Your task to perform on an android device: Empty the shopping cart on walmart.com. Search for sony triple a on walmart.com, select the first entry, and add it to the cart. Image 0: 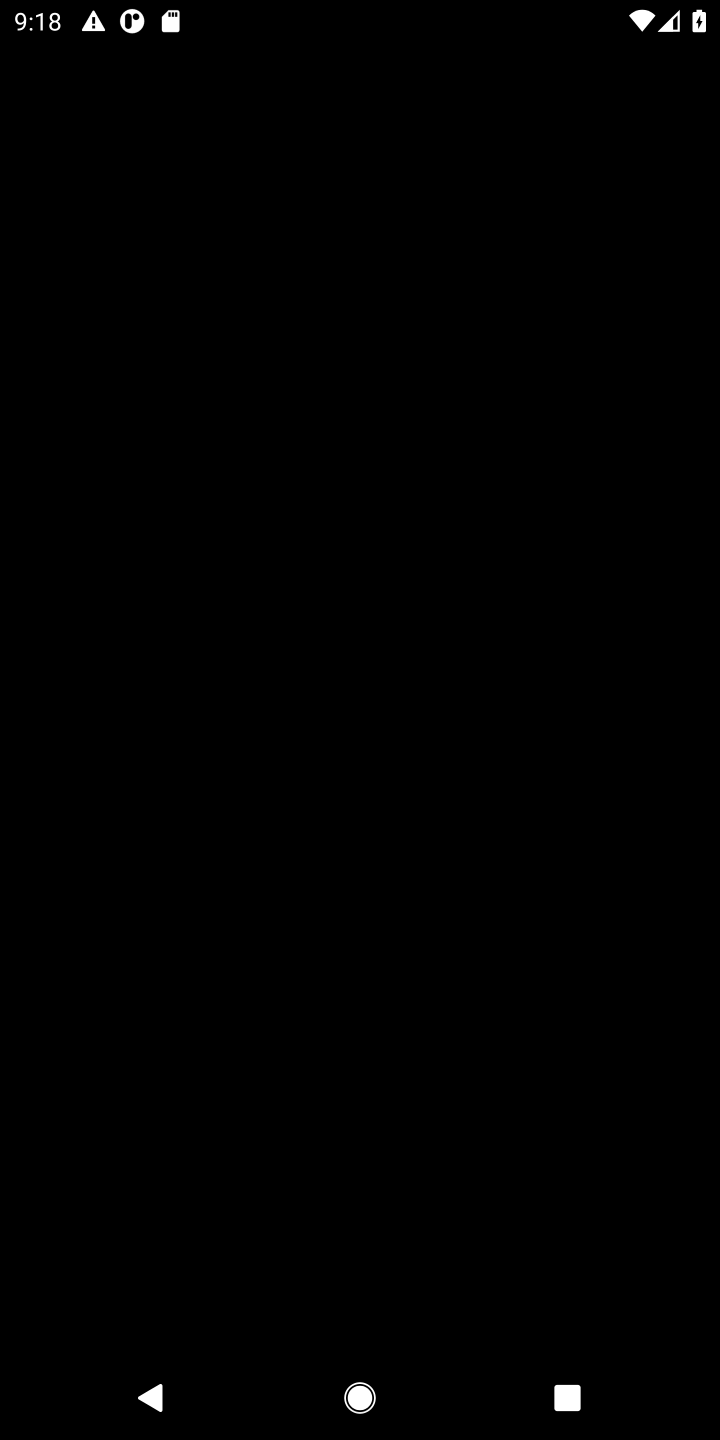
Step 0: press home button
Your task to perform on an android device: Empty the shopping cart on walmart.com. Search for sony triple a on walmart.com, select the first entry, and add it to the cart. Image 1: 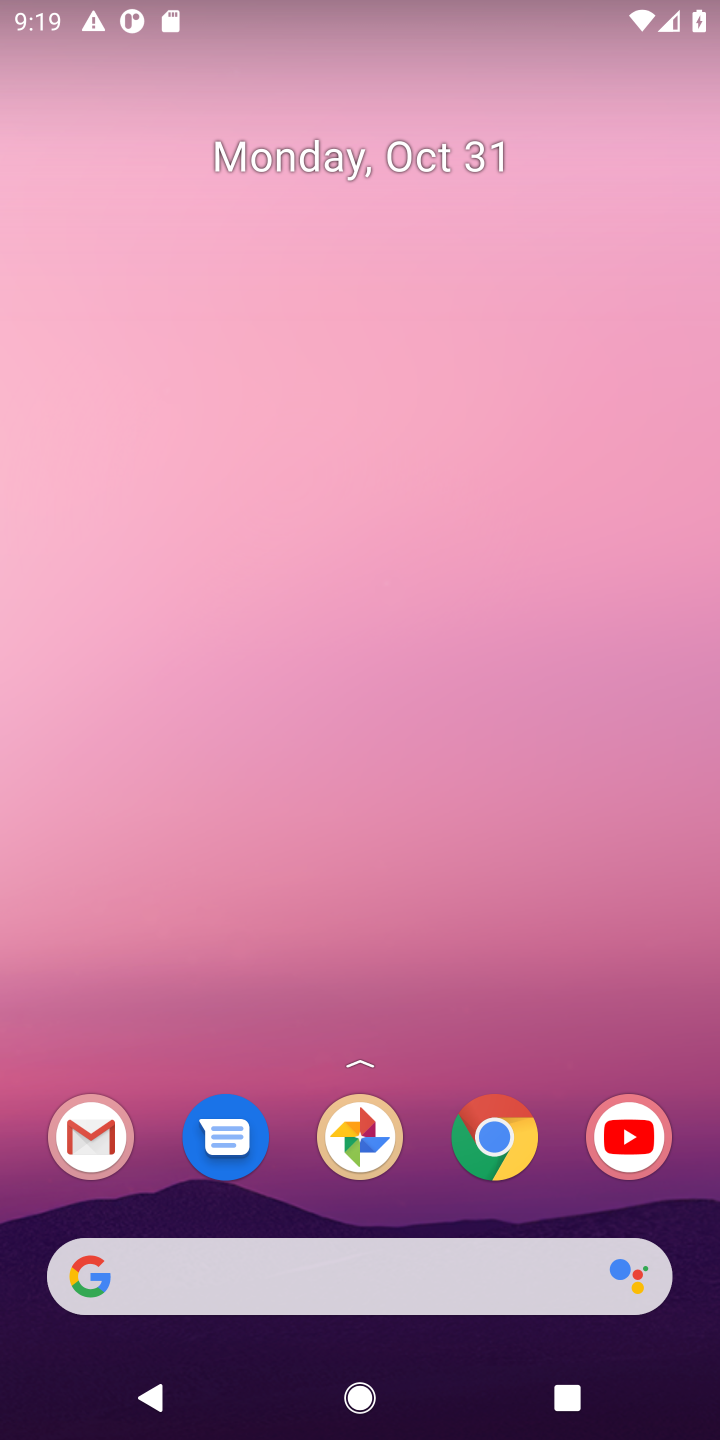
Step 1: click (504, 1151)
Your task to perform on an android device: Empty the shopping cart on walmart.com. Search for sony triple a on walmart.com, select the first entry, and add it to the cart. Image 2: 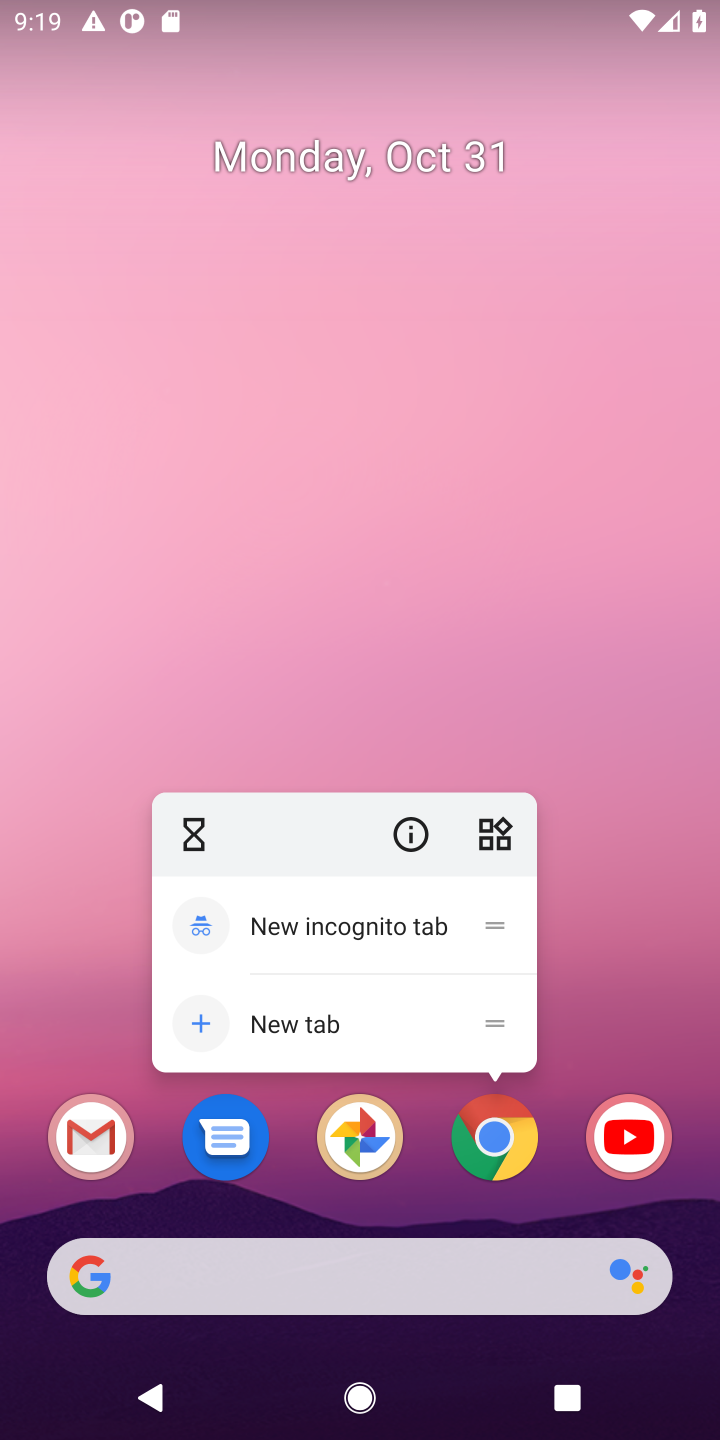
Step 2: click (660, 983)
Your task to perform on an android device: Empty the shopping cart on walmart.com. Search for sony triple a on walmart.com, select the first entry, and add it to the cart. Image 3: 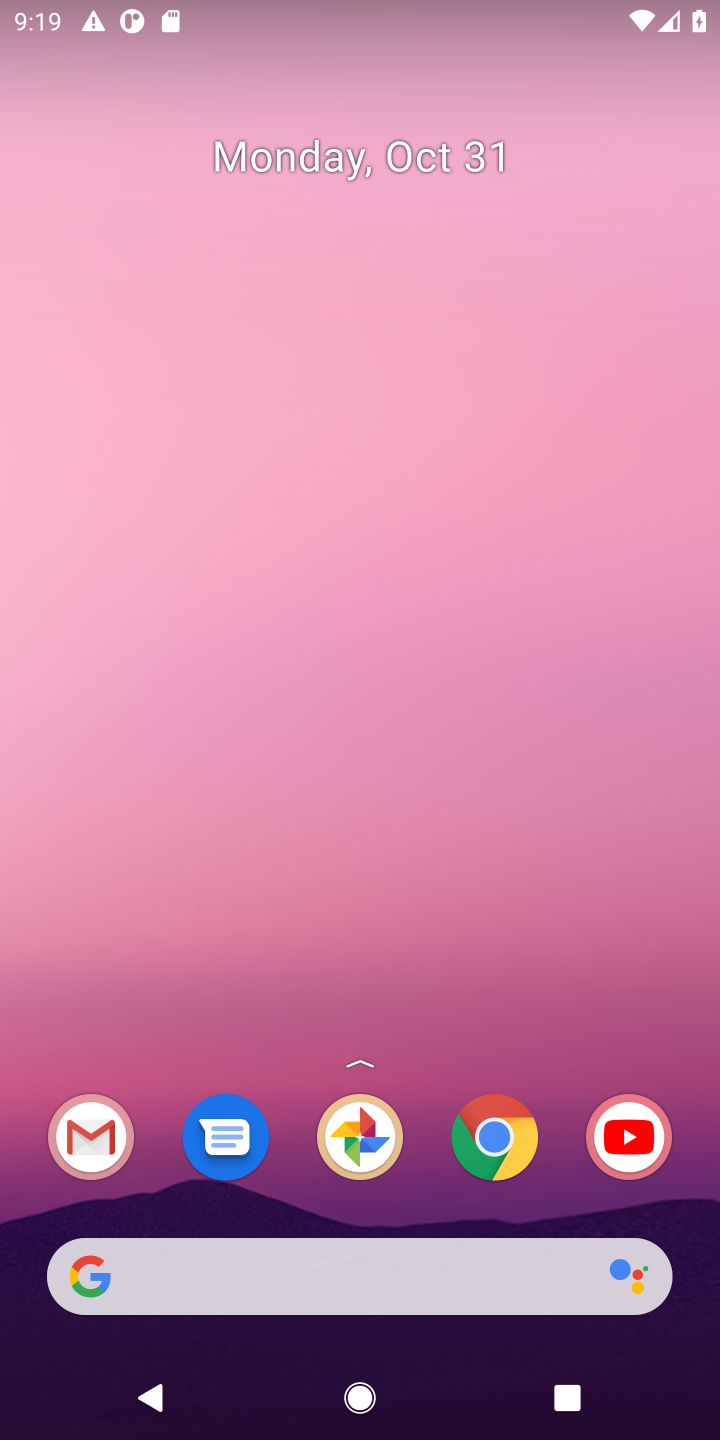
Step 3: click (488, 1130)
Your task to perform on an android device: Empty the shopping cart on walmart.com. Search for sony triple a on walmart.com, select the first entry, and add it to the cart. Image 4: 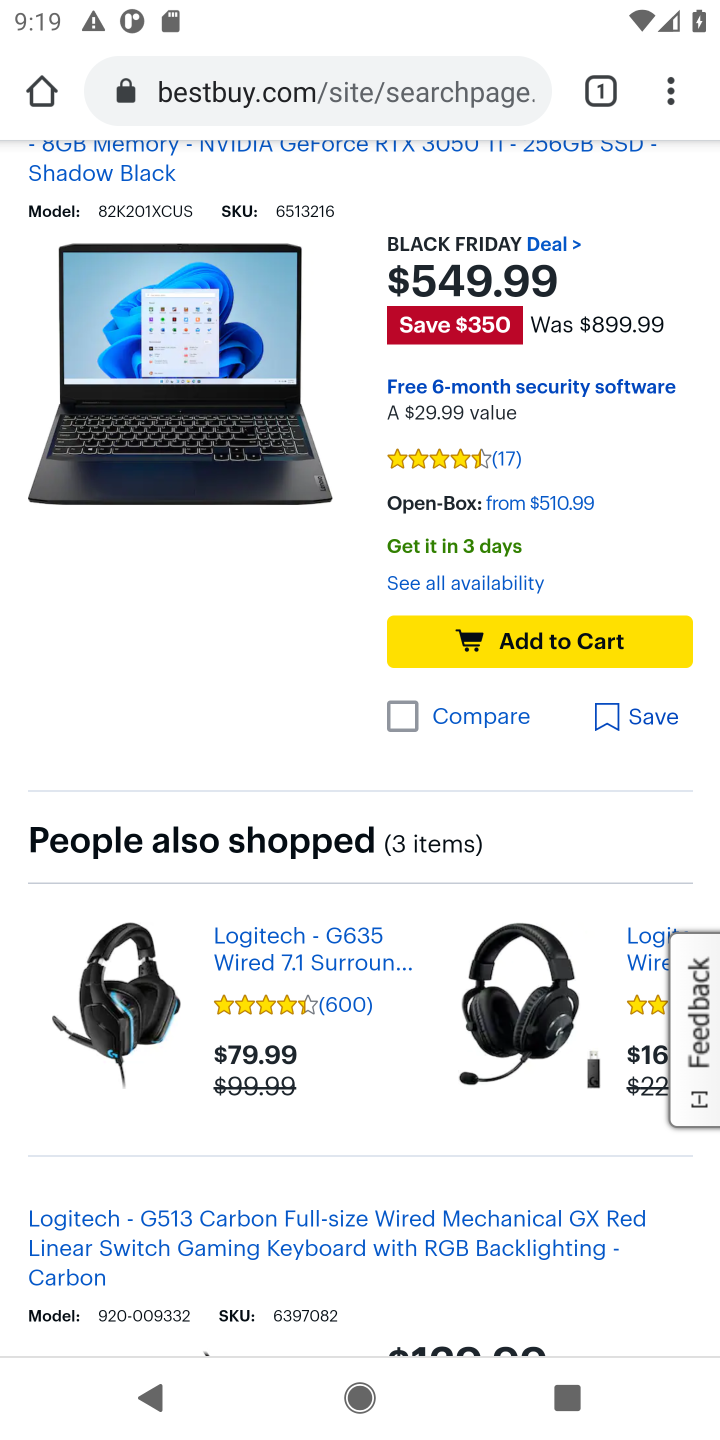
Step 4: click (378, 96)
Your task to perform on an android device: Empty the shopping cart on walmart.com. Search for sony triple a on walmart.com, select the first entry, and add it to the cart. Image 5: 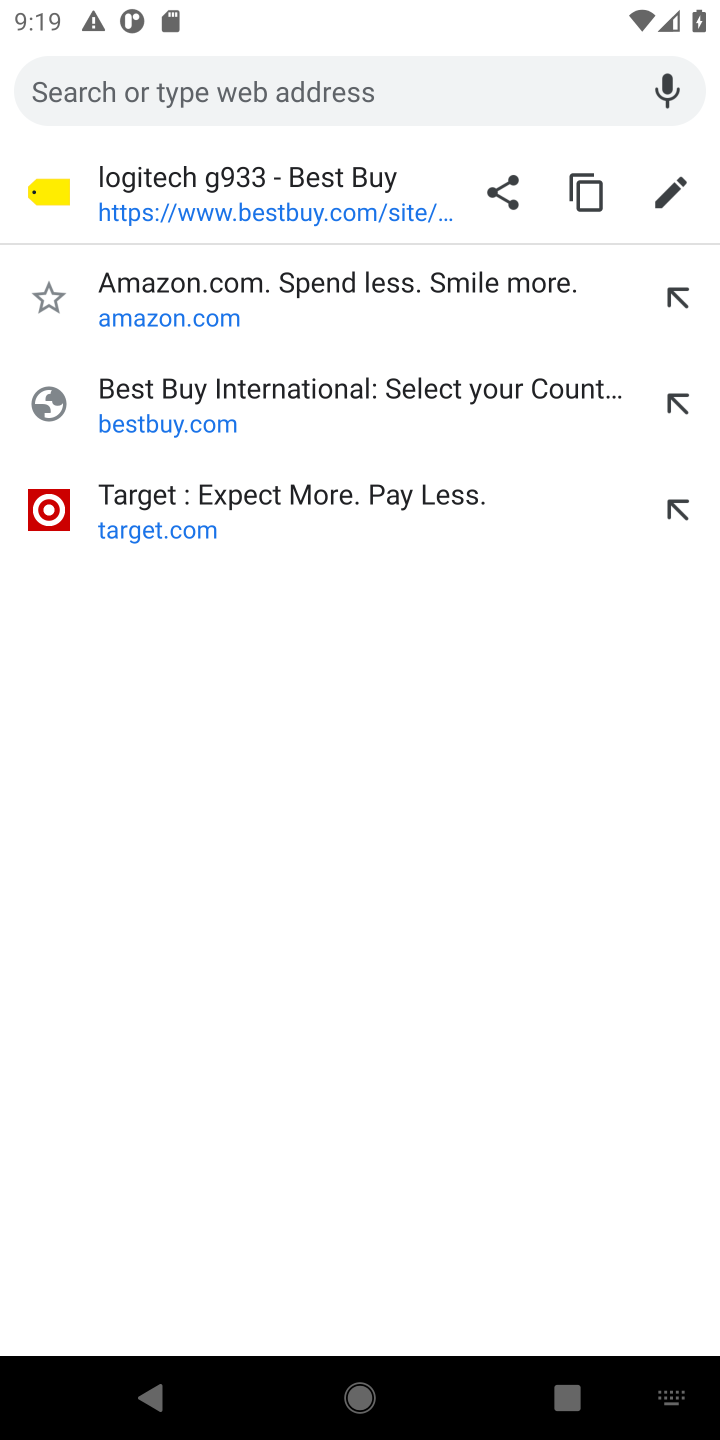
Step 5: type "walmart.com"
Your task to perform on an android device: Empty the shopping cart on walmart.com. Search for sony triple a on walmart.com, select the first entry, and add it to the cart. Image 6: 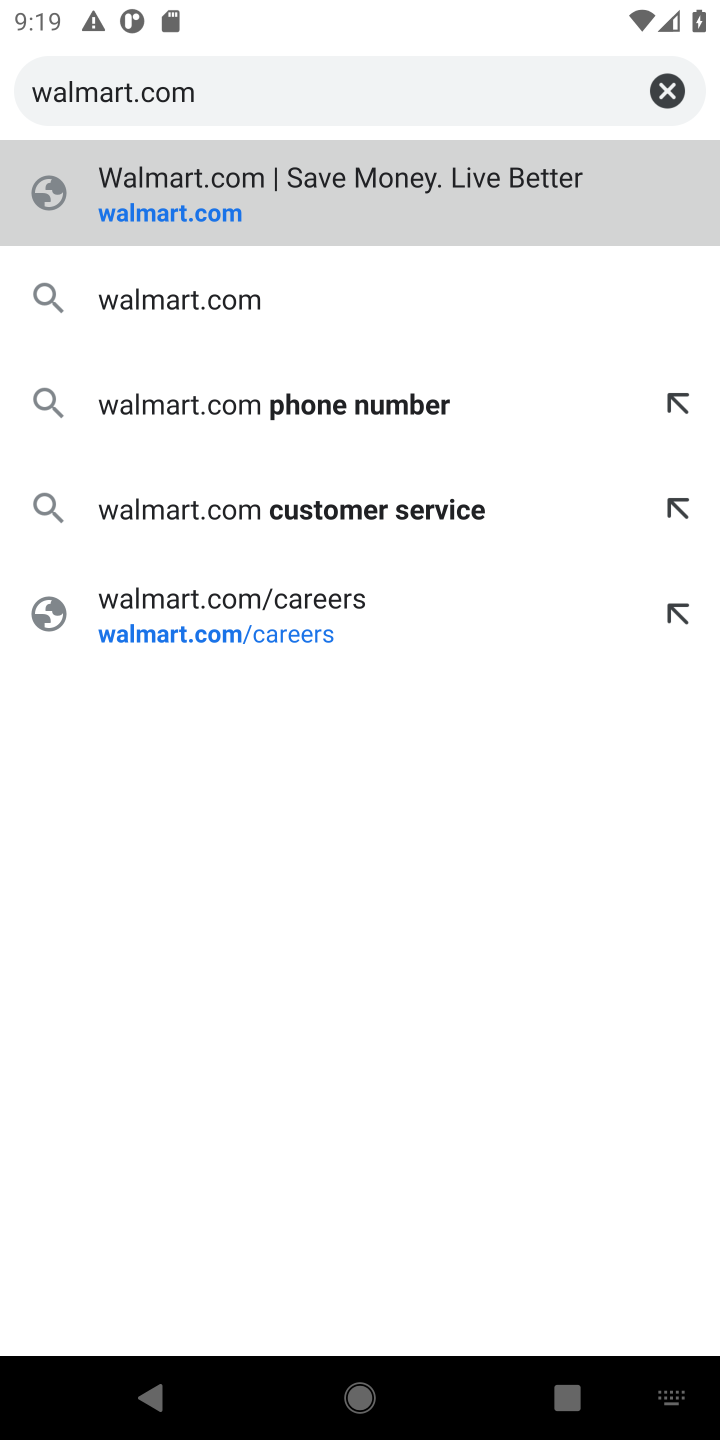
Step 6: click (187, 222)
Your task to perform on an android device: Empty the shopping cart on walmart.com. Search for sony triple a on walmart.com, select the first entry, and add it to the cart. Image 7: 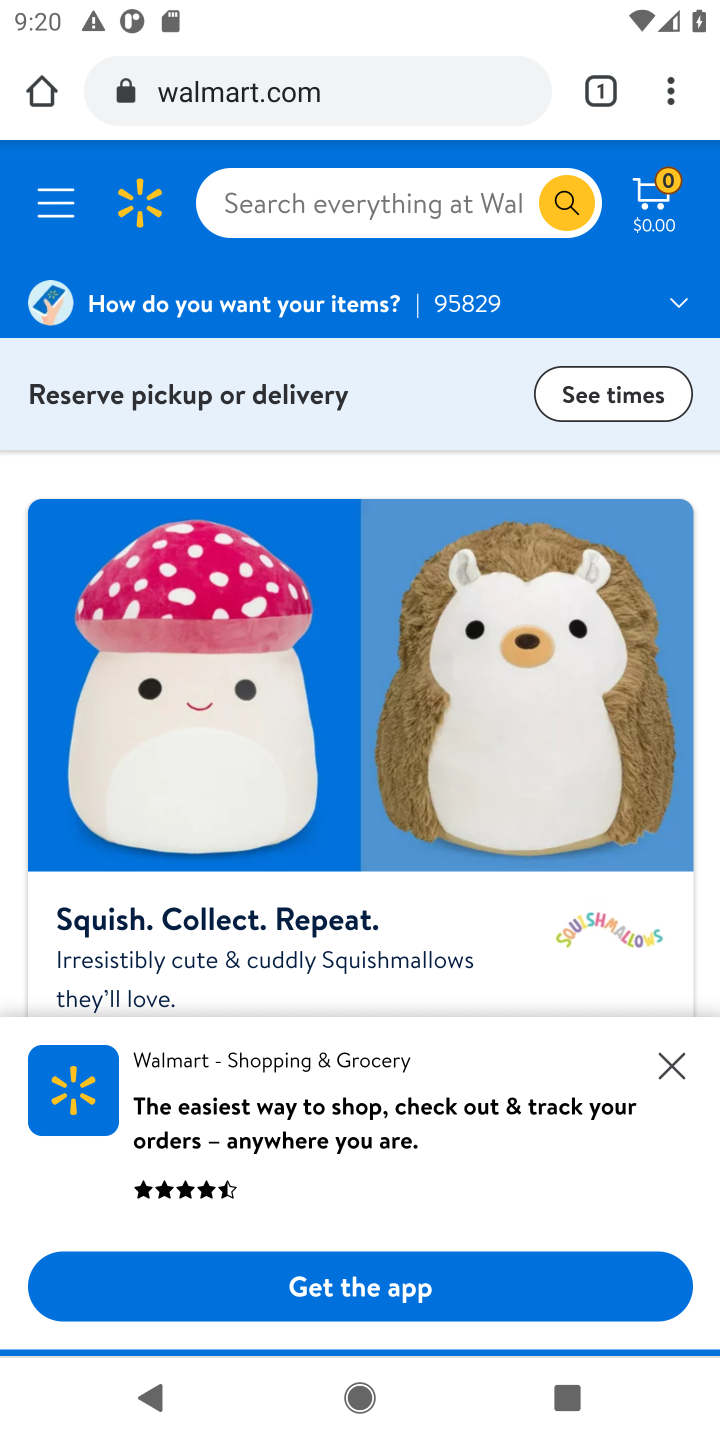
Step 7: click (372, 191)
Your task to perform on an android device: Empty the shopping cart on walmart.com. Search for sony triple a on walmart.com, select the first entry, and add it to the cart. Image 8: 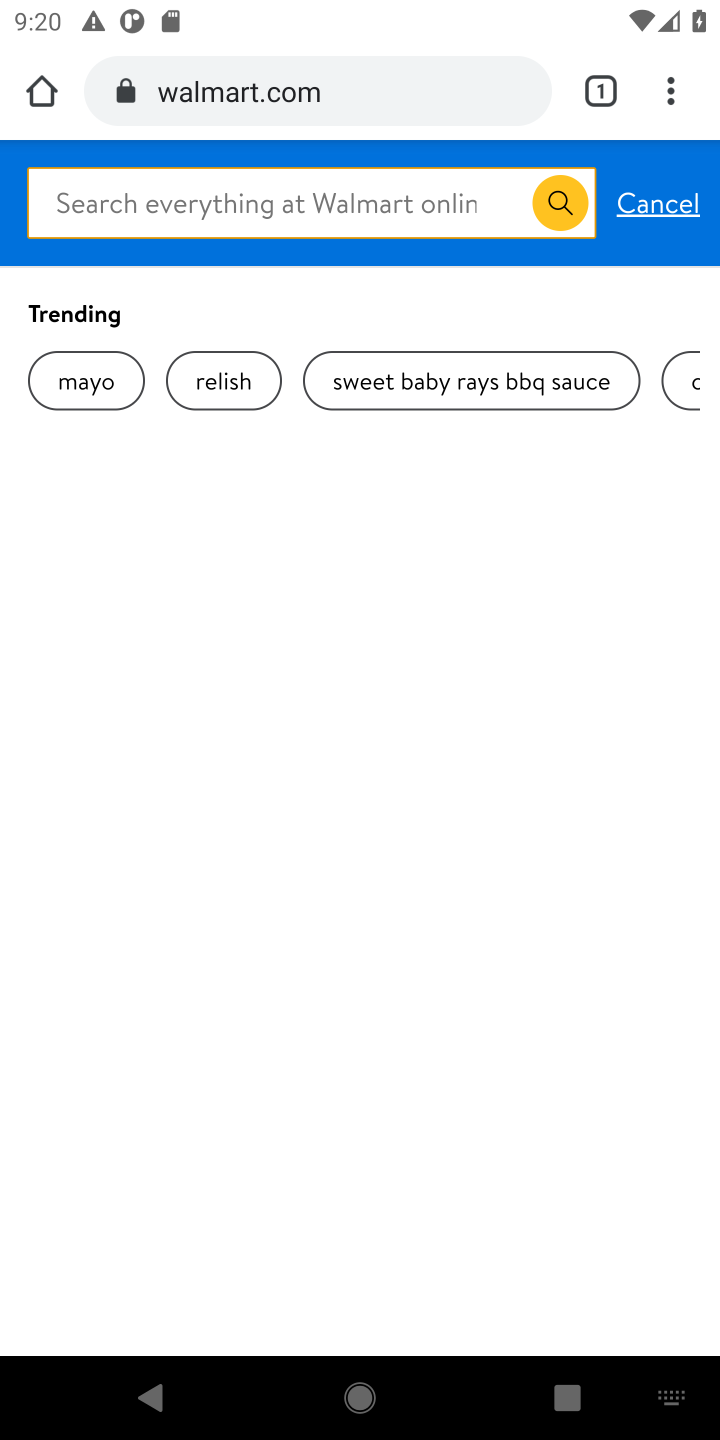
Step 8: type " sony triple a "
Your task to perform on an android device: Empty the shopping cart on walmart.com. Search for sony triple a on walmart.com, select the first entry, and add it to the cart. Image 9: 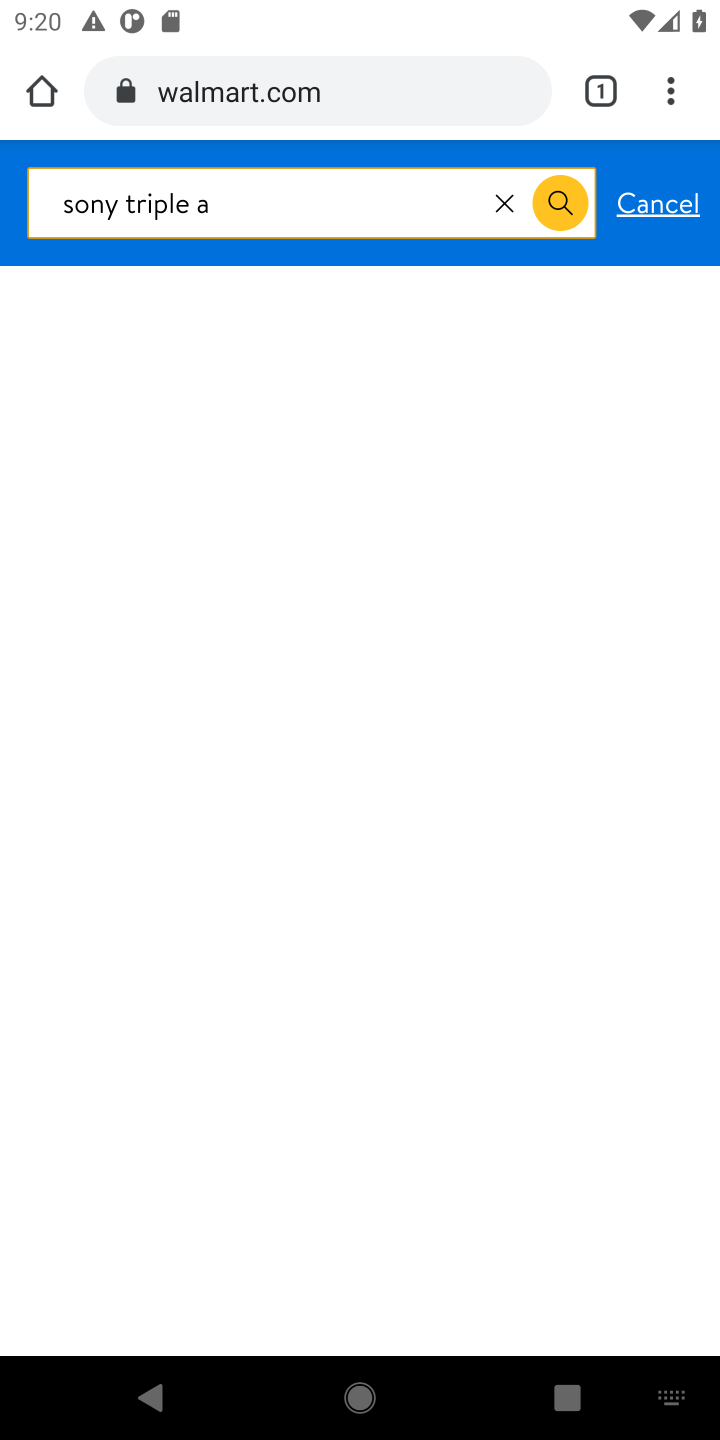
Step 9: click (549, 211)
Your task to perform on an android device: Empty the shopping cart on walmart.com. Search for sony triple a on walmart.com, select the first entry, and add it to the cart. Image 10: 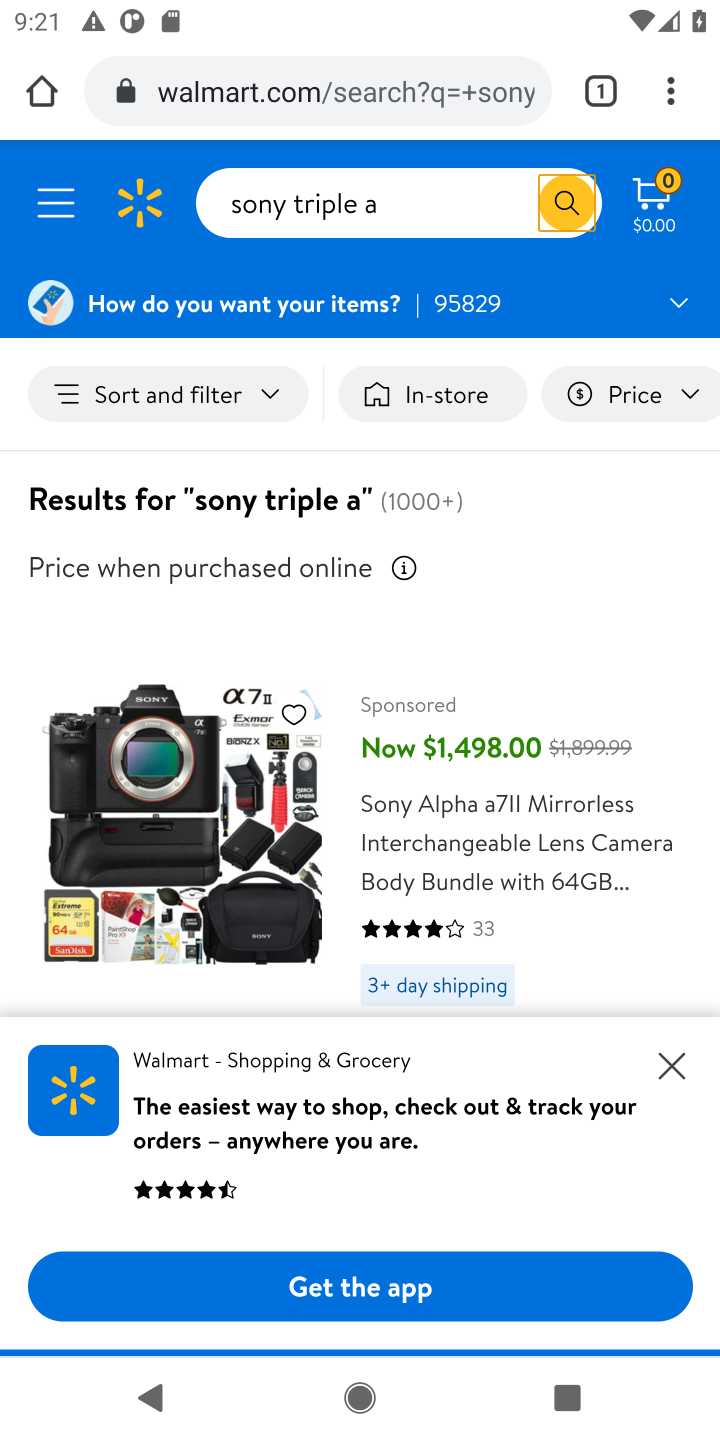
Step 10: click (674, 1075)
Your task to perform on an android device: Empty the shopping cart on walmart.com. Search for sony triple a on walmart.com, select the first entry, and add it to the cart. Image 11: 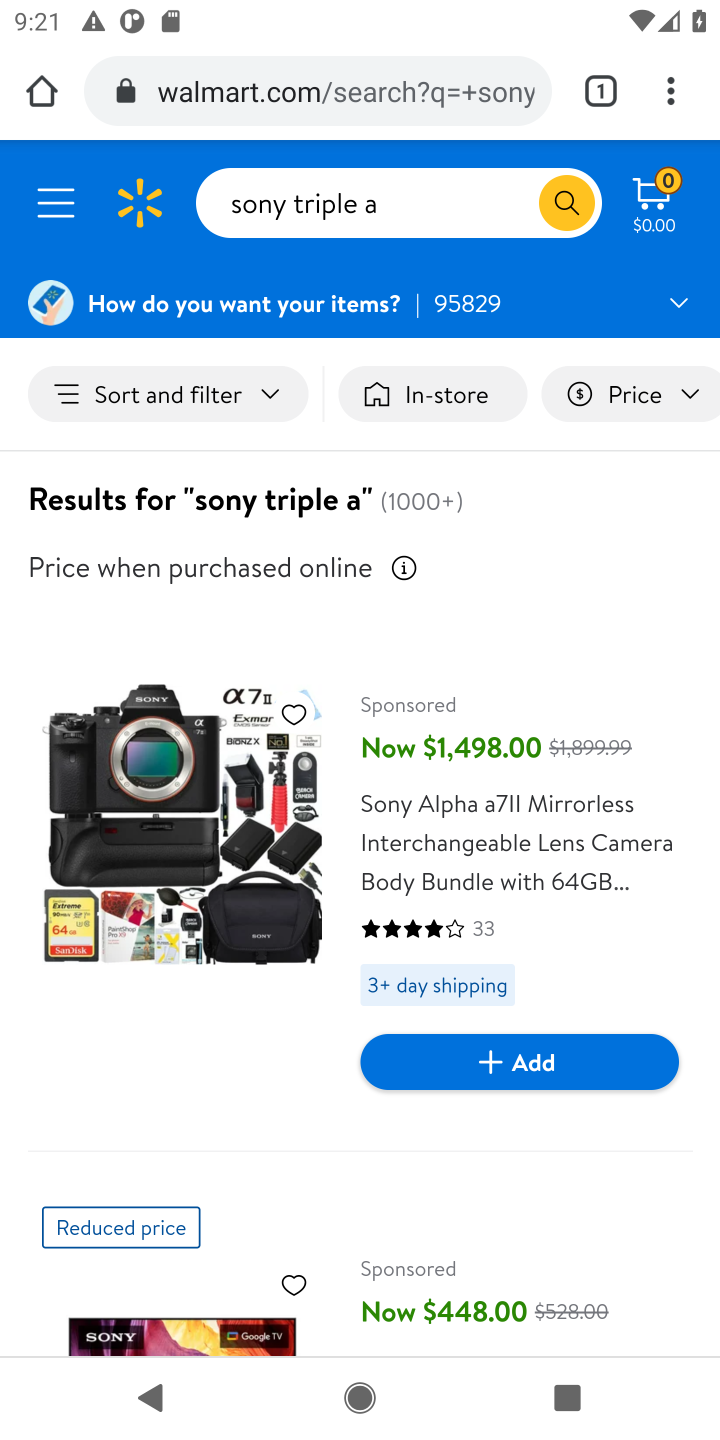
Step 11: task complete